Your task to perform on an android device: change the clock display to analog Image 0: 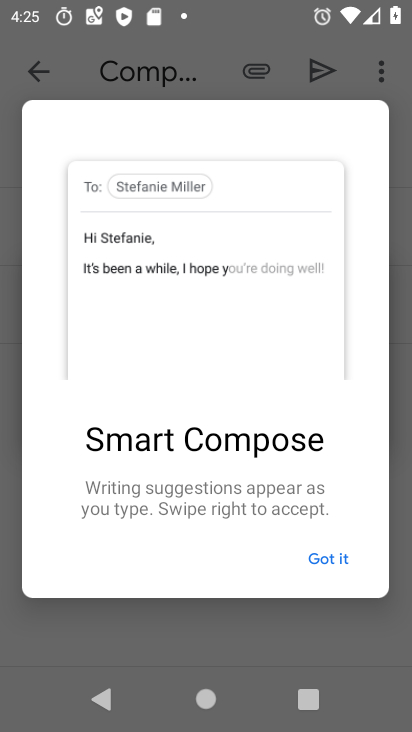
Step 0: press home button
Your task to perform on an android device: change the clock display to analog Image 1: 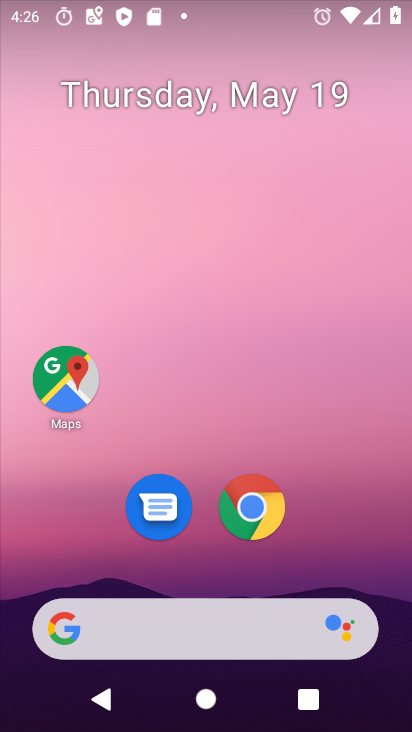
Step 1: click (372, 312)
Your task to perform on an android device: change the clock display to analog Image 2: 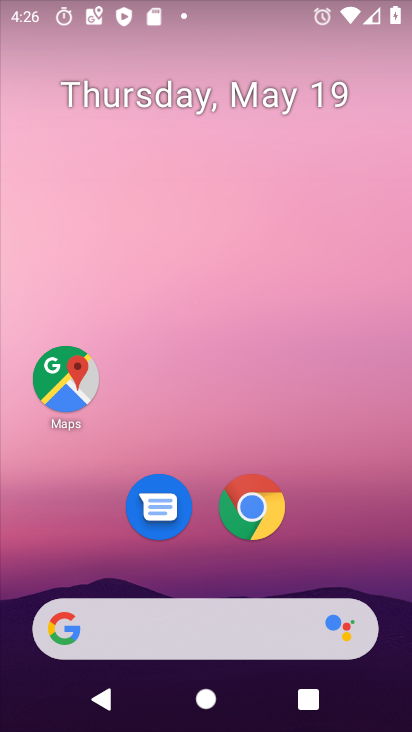
Step 2: drag from (380, 517) to (346, 208)
Your task to perform on an android device: change the clock display to analog Image 3: 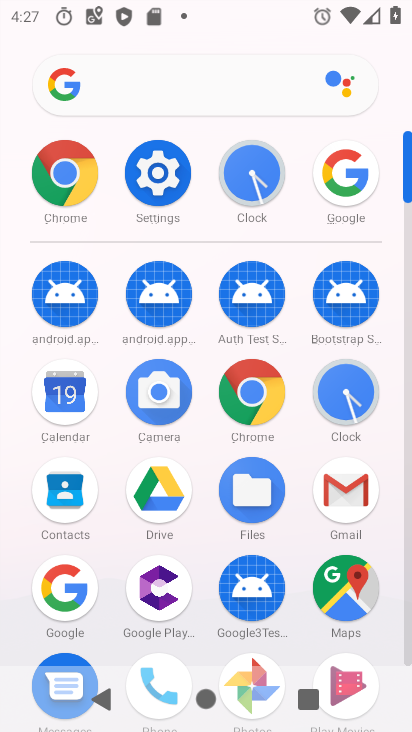
Step 3: click (351, 407)
Your task to perform on an android device: change the clock display to analog Image 4: 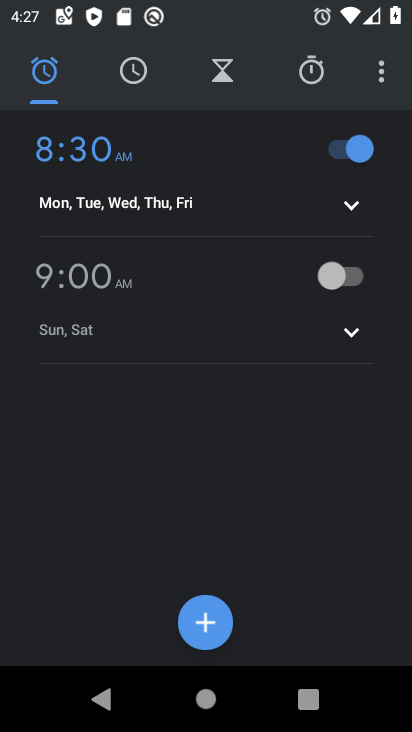
Step 4: click (384, 67)
Your task to perform on an android device: change the clock display to analog Image 5: 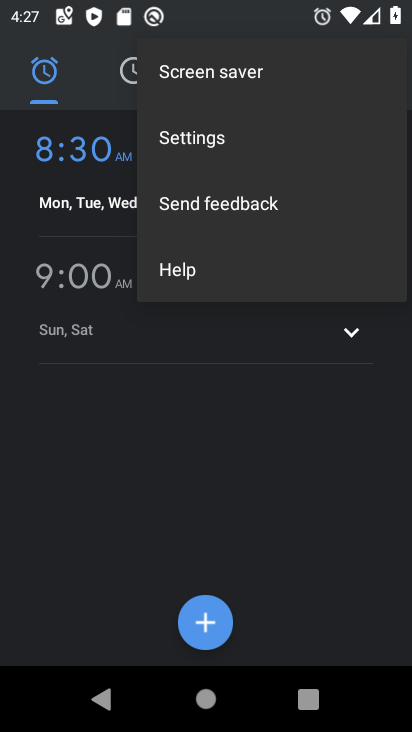
Step 5: click (207, 135)
Your task to perform on an android device: change the clock display to analog Image 6: 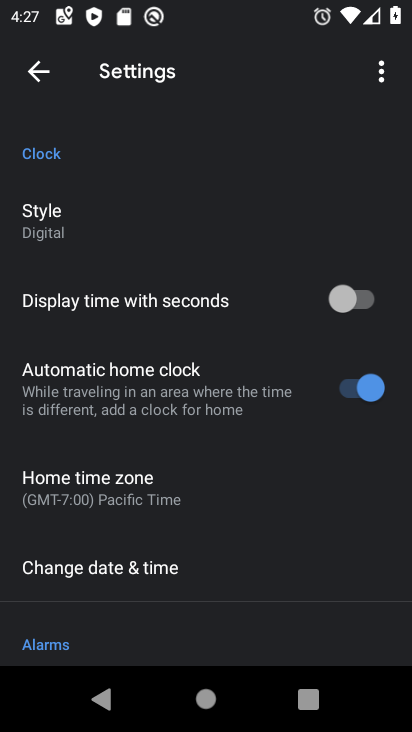
Step 6: click (47, 222)
Your task to perform on an android device: change the clock display to analog Image 7: 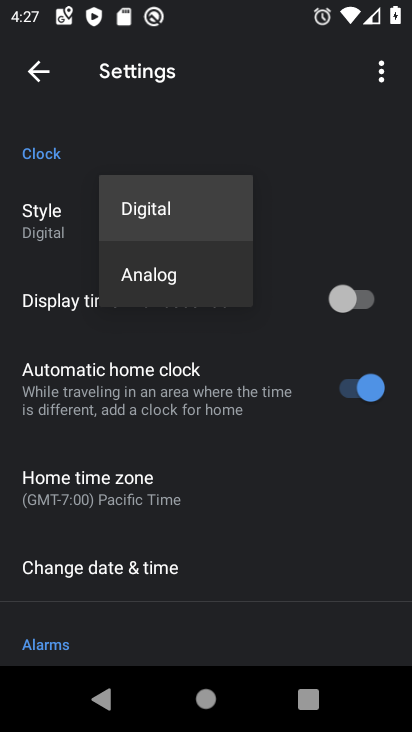
Step 7: click (121, 276)
Your task to perform on an android device: change the clock display to analog Image 8: 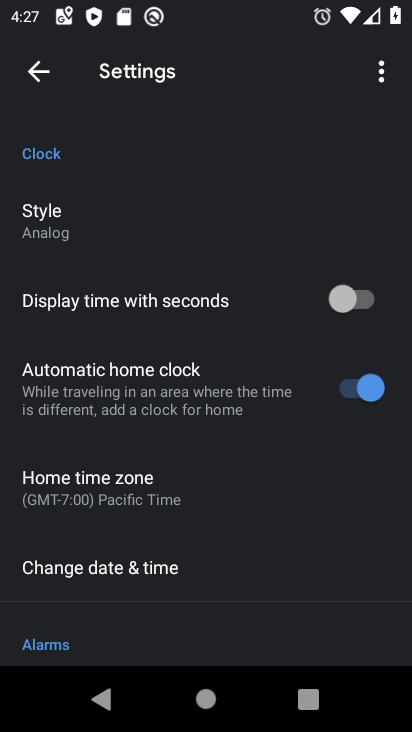
Step 8: task complete